Your task to perform on an android device: turn off wifi Image 0: 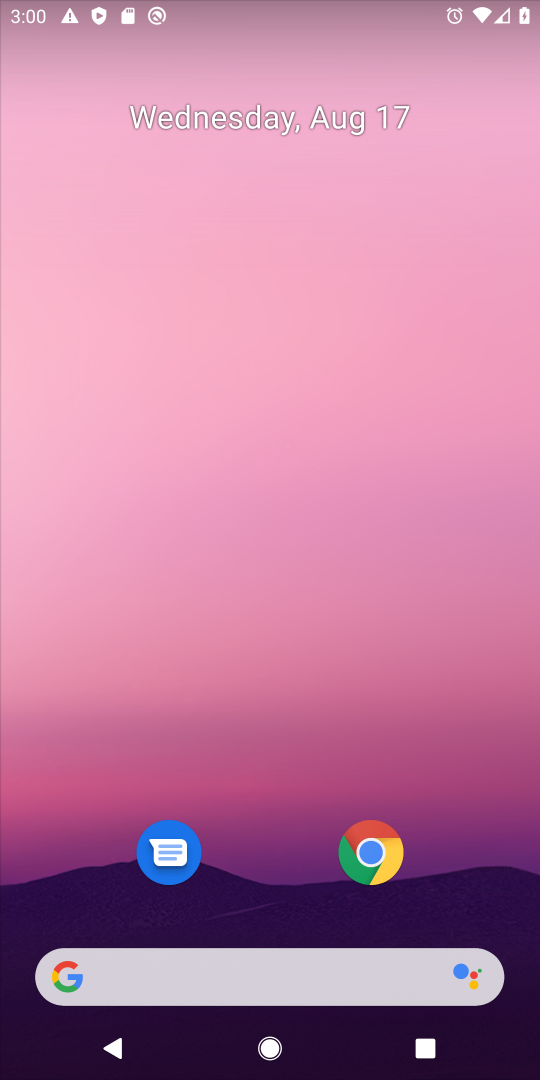
Step 0: drag from (289, 825) to (363, 108)
Your task to perform on an android device: turn off wifi Image 1: 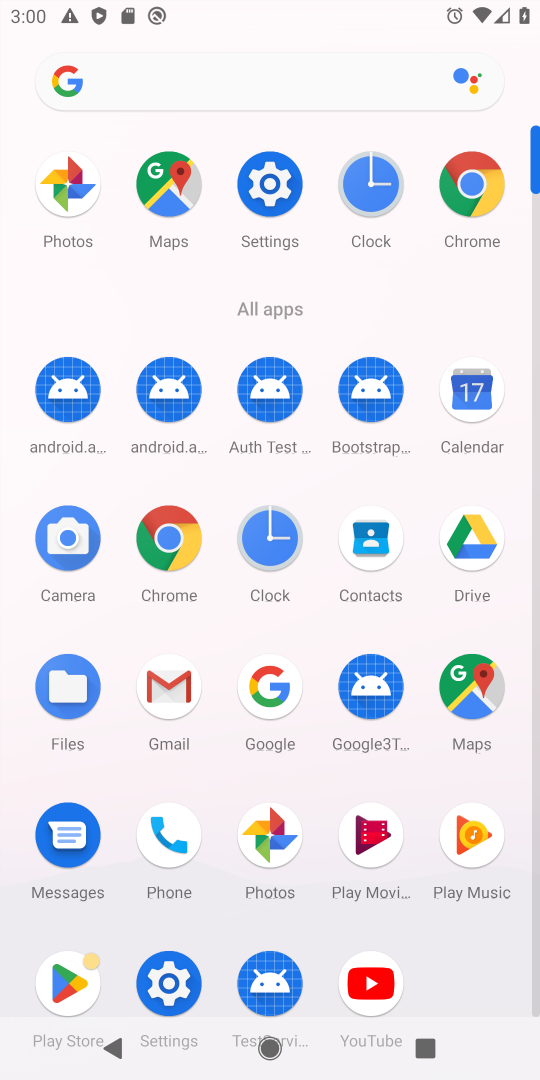
Step 1: click (163, 988)
Your task to perform on an android device: turn off wifi Image 2: 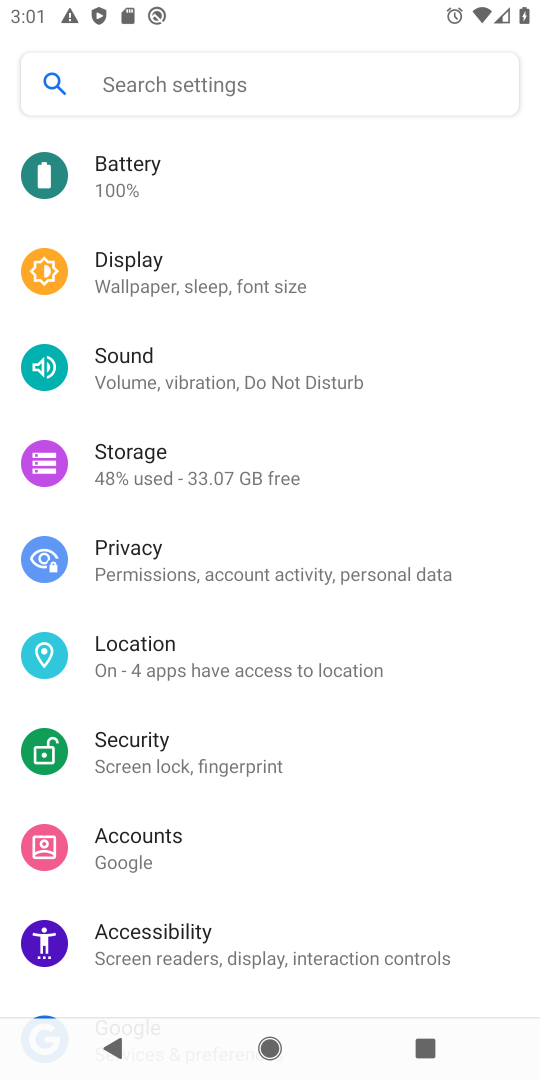
Step 2: drag from (291, 313) to (264, 936)
Your task to perform on an android device: turn off wifi Image 3: 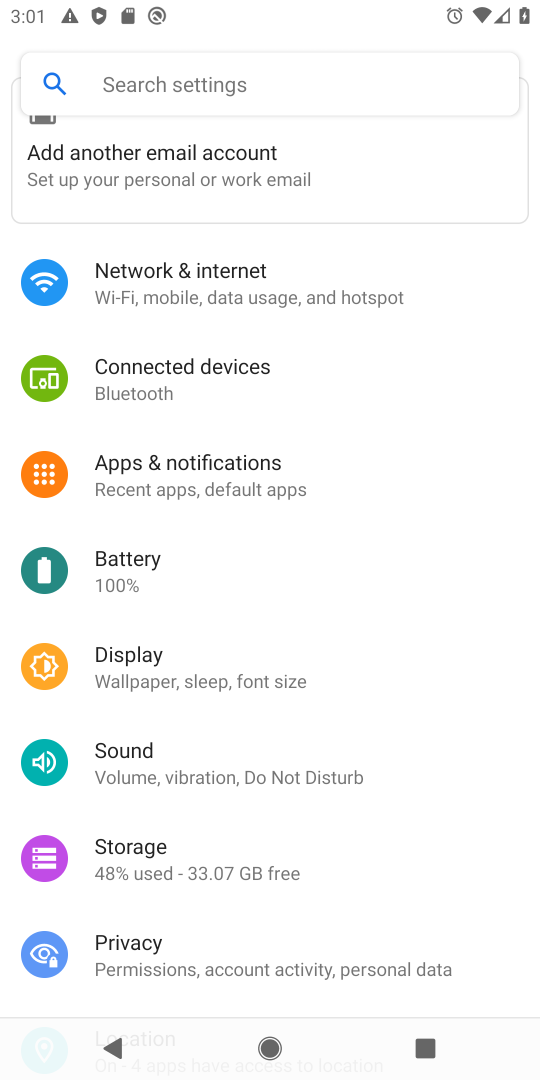
Step 3: click (208, 304)
Your task to perform on an android device: turn off wifi Image 4: 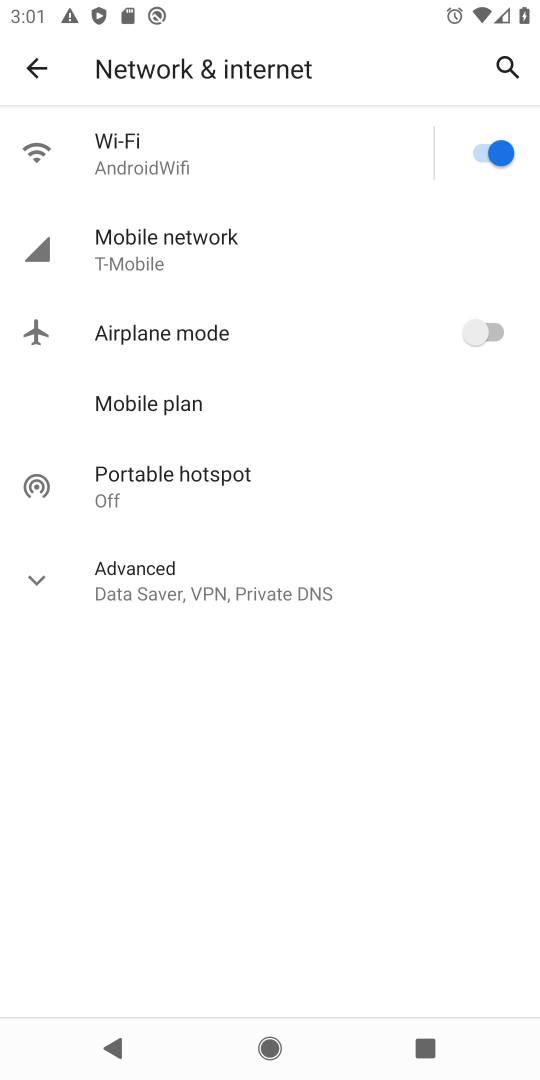
Step 4: click (196, 155)
Your task to perform on an android device: turn off wifi Image 5: 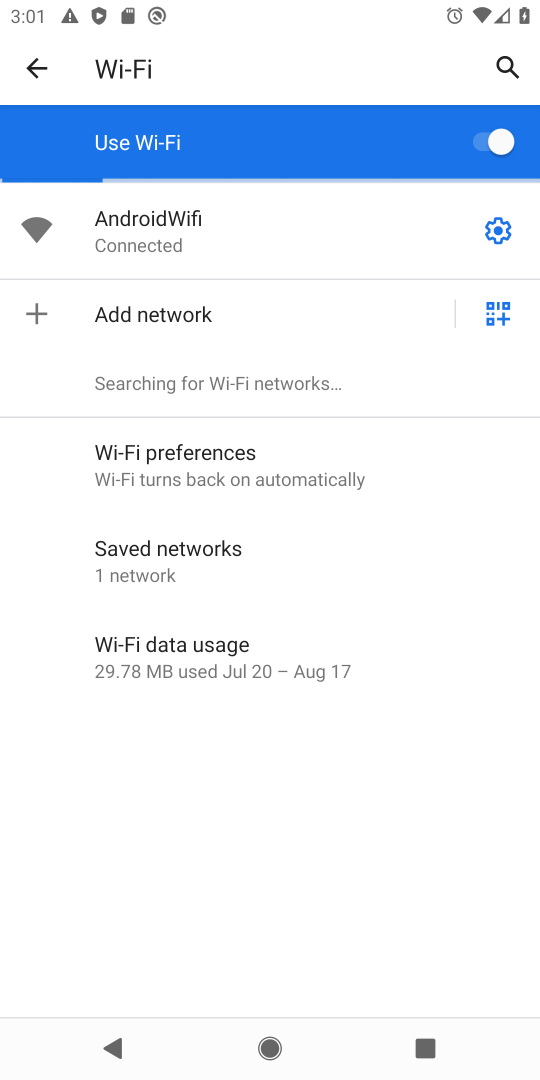
Step 5: click (493, 142)
Your task to perform on an android device: turn off wifi Image 6: 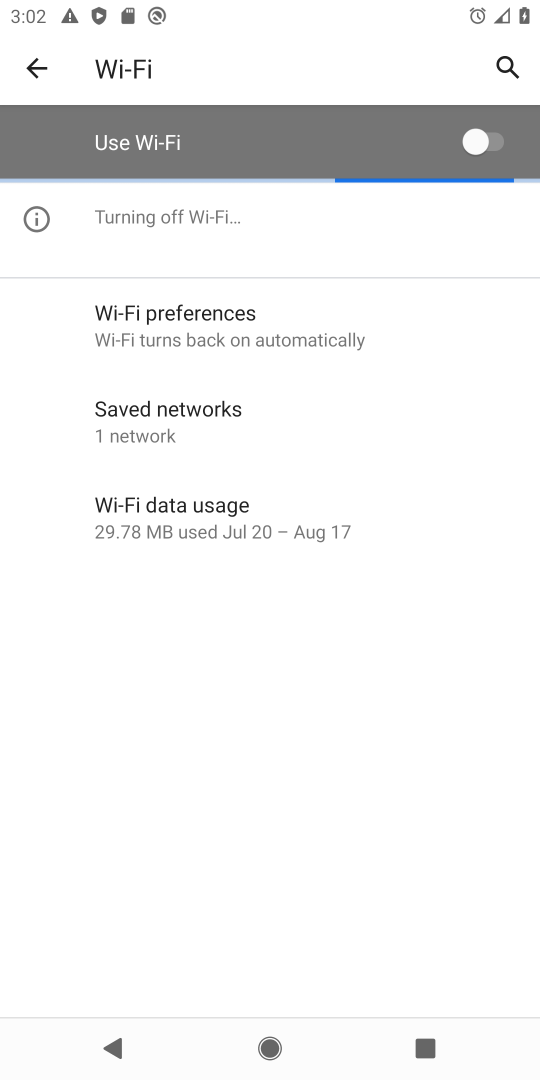
Step 6: task complete